Your task to perform on an android device: turn on location history Image 0: 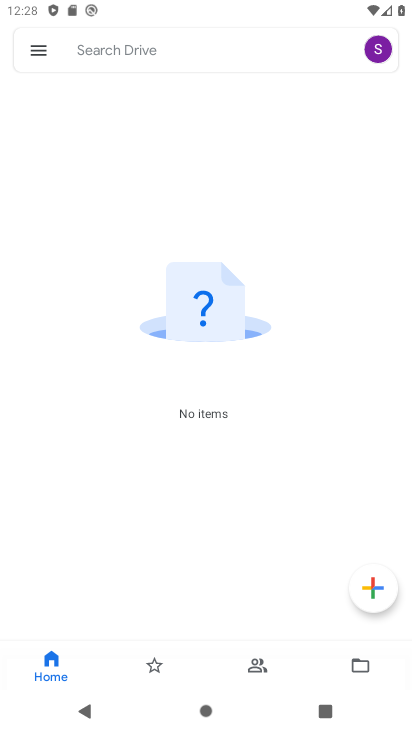
Step 0: press home button
Your task to perform on an android device: turn on location history Image 1: 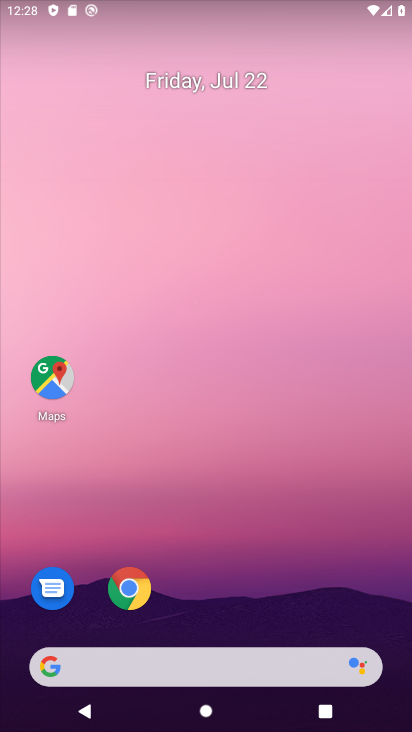
Step 1: drag from (219, 624) to (148, 40)
Your task to perform on an android device: turn on location history Image 2: 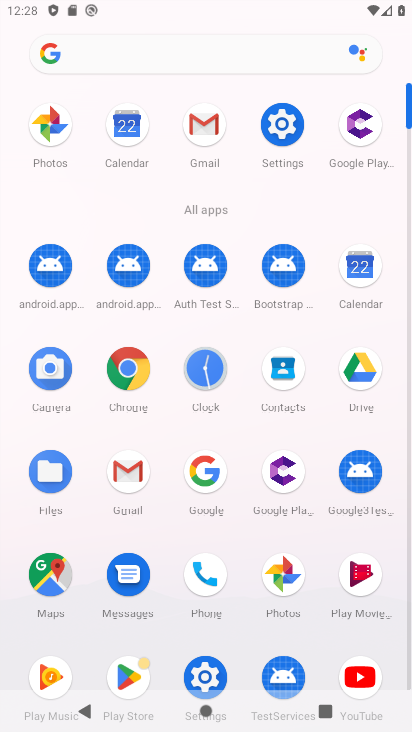
Step 2: click (278, 131)
Your task to perform on an android device: turn on location history Image 3: 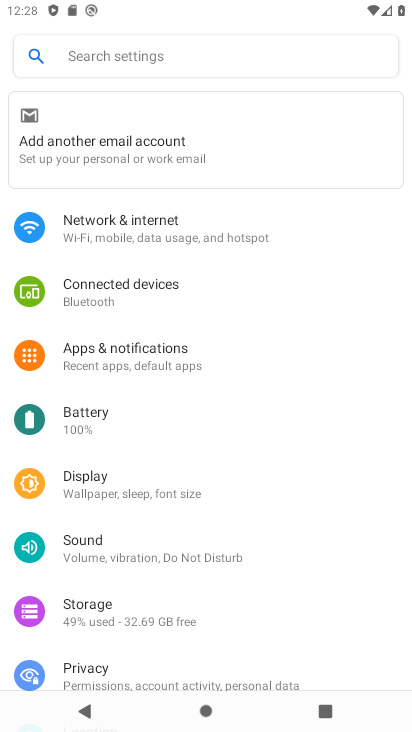
Step 3: drag from (172, 541) to (153, 188)
Your task to perform on an android device: turn on location history Image 4: 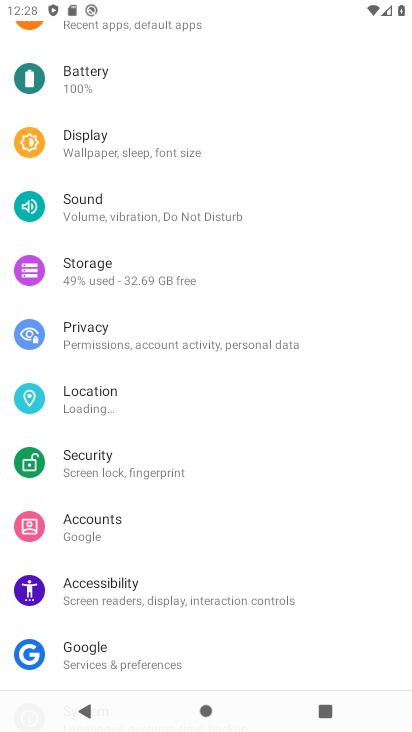
Step 4: click (112, 393)
Your task to perform on an android device: turn on location history Image 5: 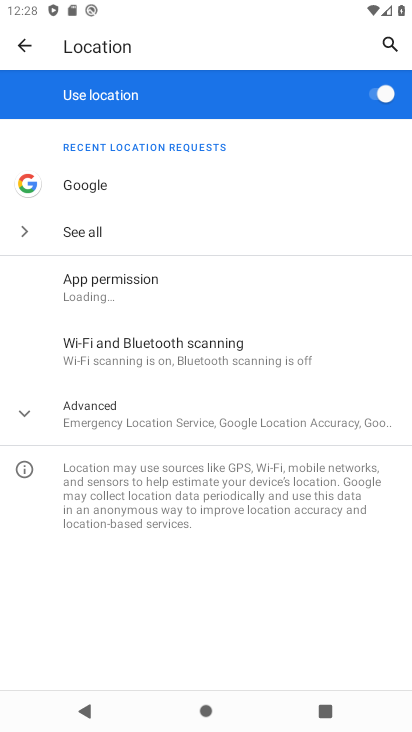
Step 5: click (112, 393)
Your task to perform on an android device: turn on location history Image 6: 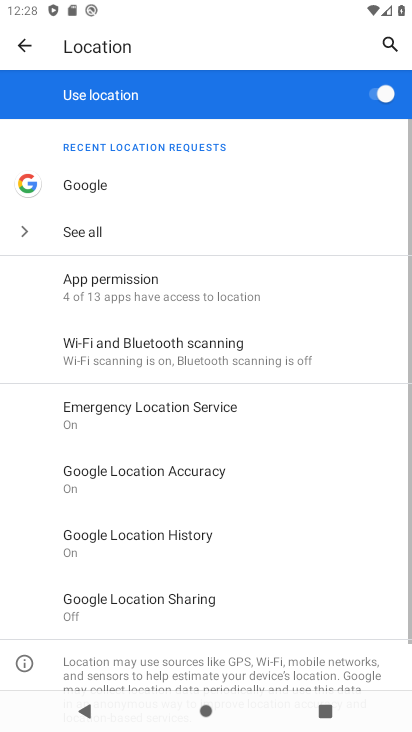
Step 6: click (162, 516)
Your task to perform on an android device: turn on location history Image 7: 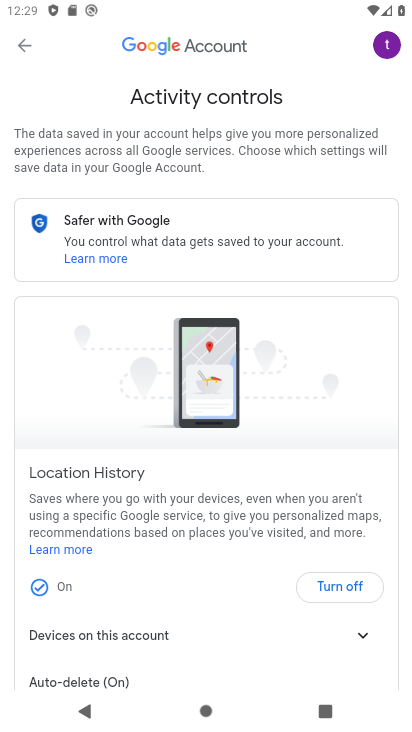
Step 7: task complete